Your task to perform on an android device: see tabs open on other devices in the chrome app Image 0: 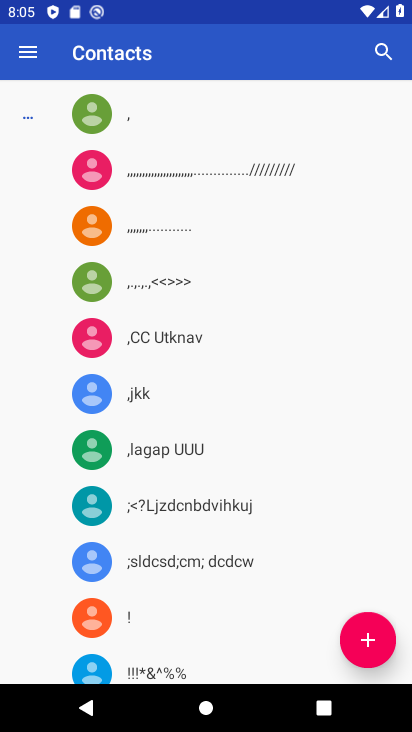
Step 0: press home button
Your task to perform on an android device: see tabs open on other devices in the chrome app Image 1: 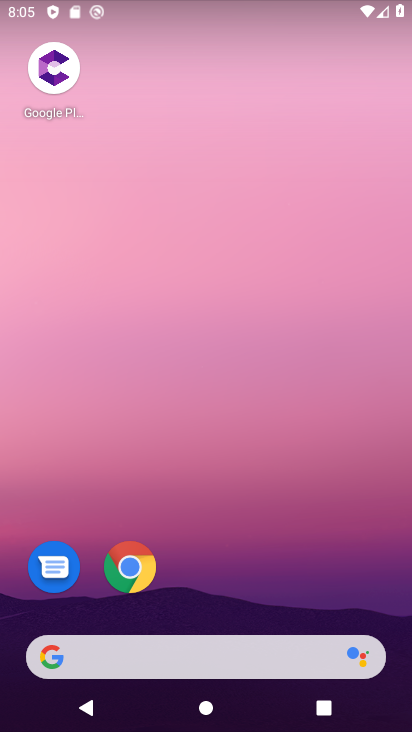
Step 1: click (134, 570)
Your task to perform on an android device: see tabs open on other devices in the chrome app Image 2: 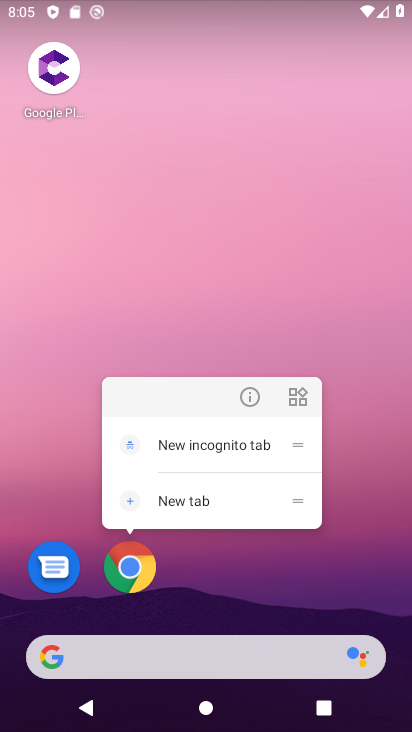
Step 2: click (134, 570)
Your task to perform on an android device: see tabs open on other devices in the chrome app Image 3: 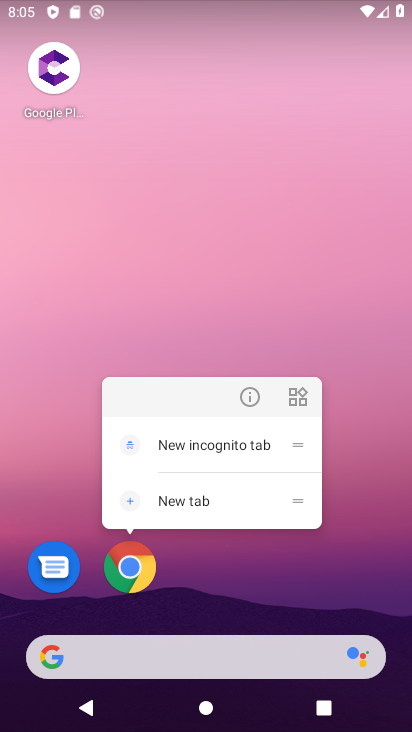
Step 3: click (134, 570)
Your task to perform on an android device: see tabs open on other devices in the chrome app Image 4: 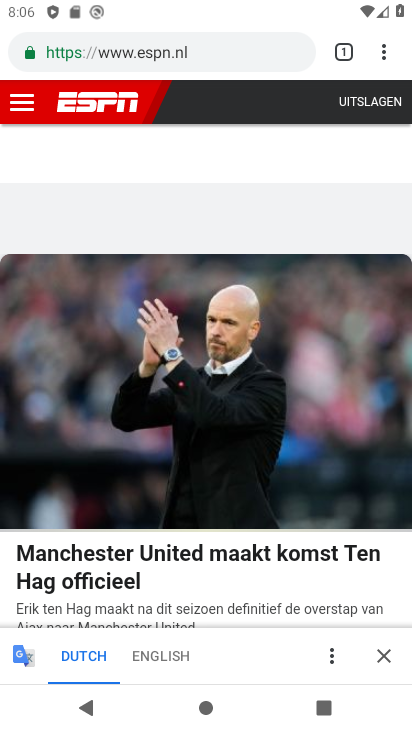
Step 4: task complete